Your task to perform on an android device: turn off priority inbox in the gmail app Image 0: 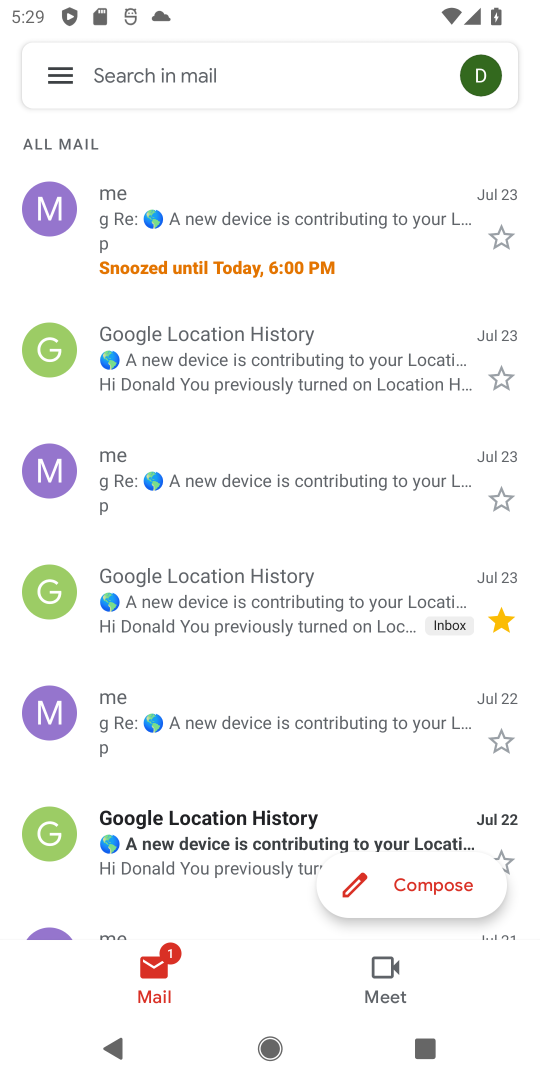
Step 0: click (50, 76)
Your task to perform on an android device: turn off priority inbox in the gmail app Image 1: 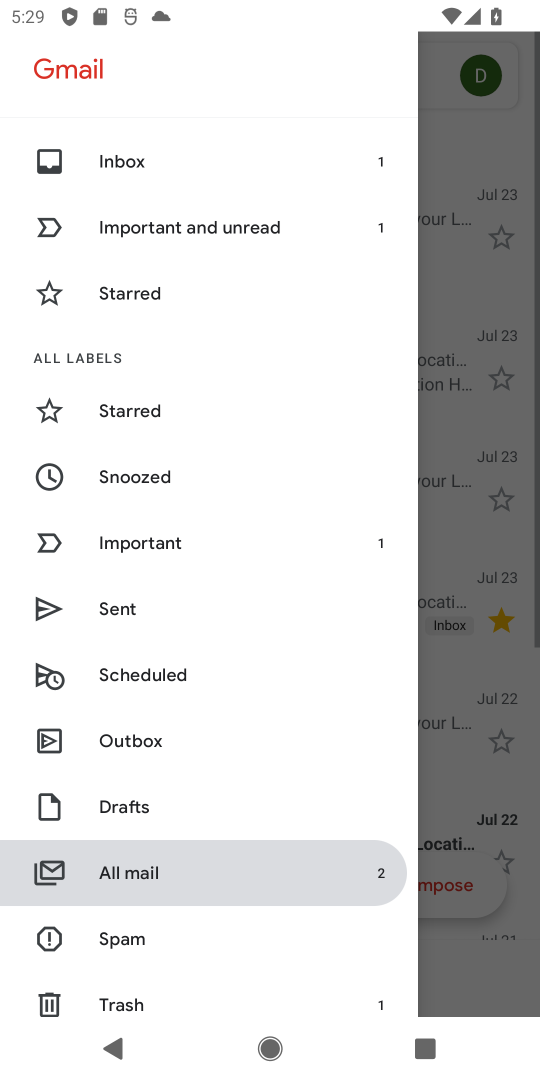
Step 1: drag from (215, 945) to (307, 40)
Your task to perform on an android device: turn off priority inbox in the gmail app Image 2: 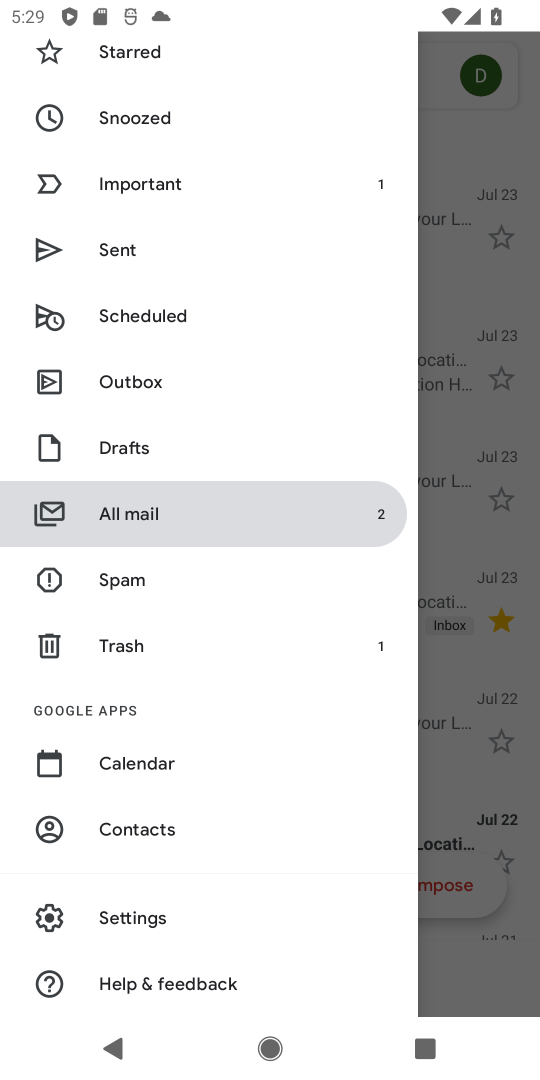
Step 2: click (131, 923)
Your task to perform on an android device: turn off priority inbox in the gmail app Image 3: 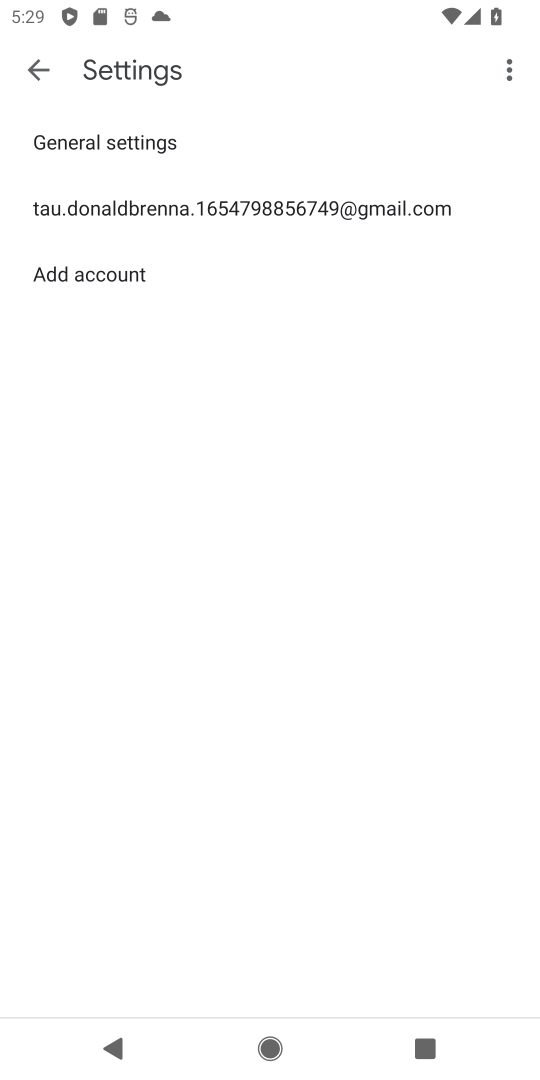
Step 3: click (148, 201)
Your task to perform on an android device: turn off priority inbox in the gmail app Image 4: 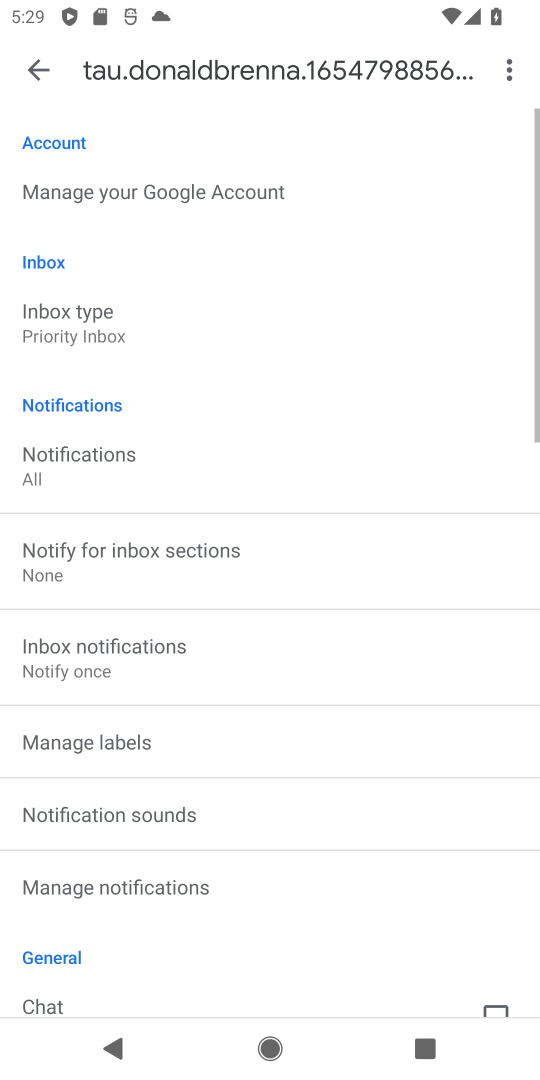
Step 4: click (77, 305)
Your task to perform on an android device: turn off priority inbox in the gmail app Image 5: 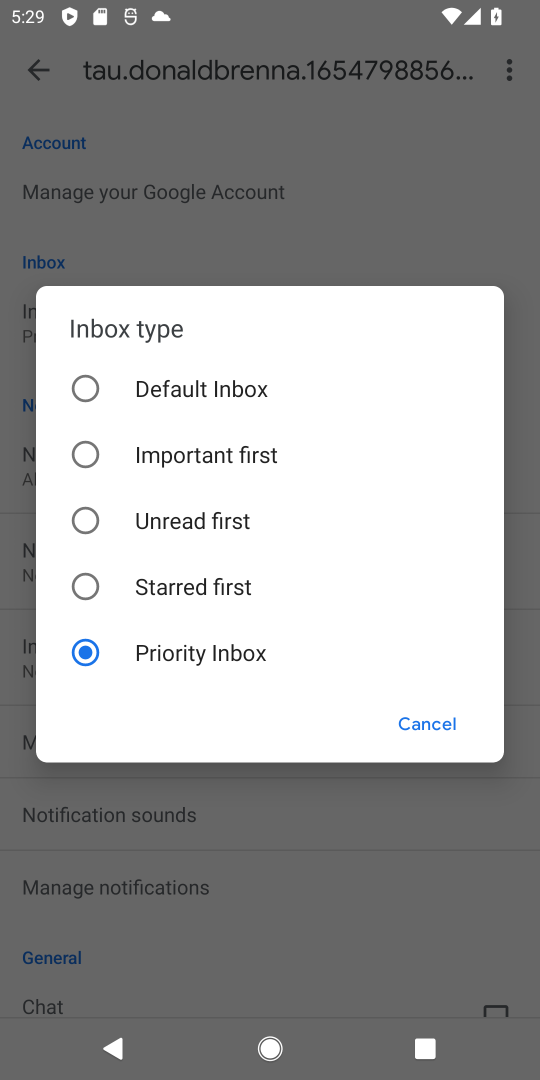
Step 5: click (109, 375)
Your task to perform on an android device: turn off priority inbox in the gmail app Image 6: 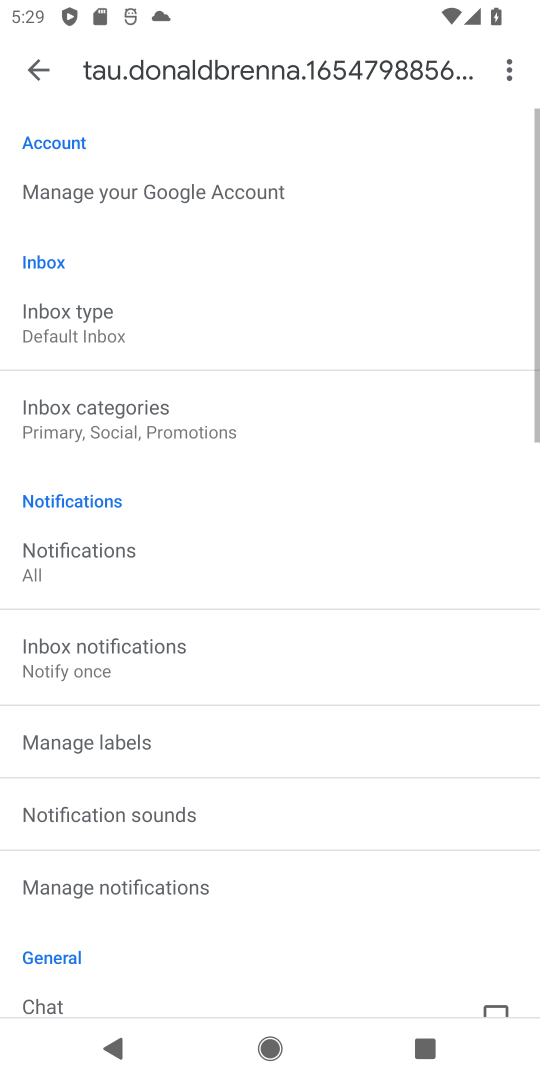
Step 6: task complete